Your task to perform on an android device: open app "Viber Messenger" (install if not already installed) Image 0: 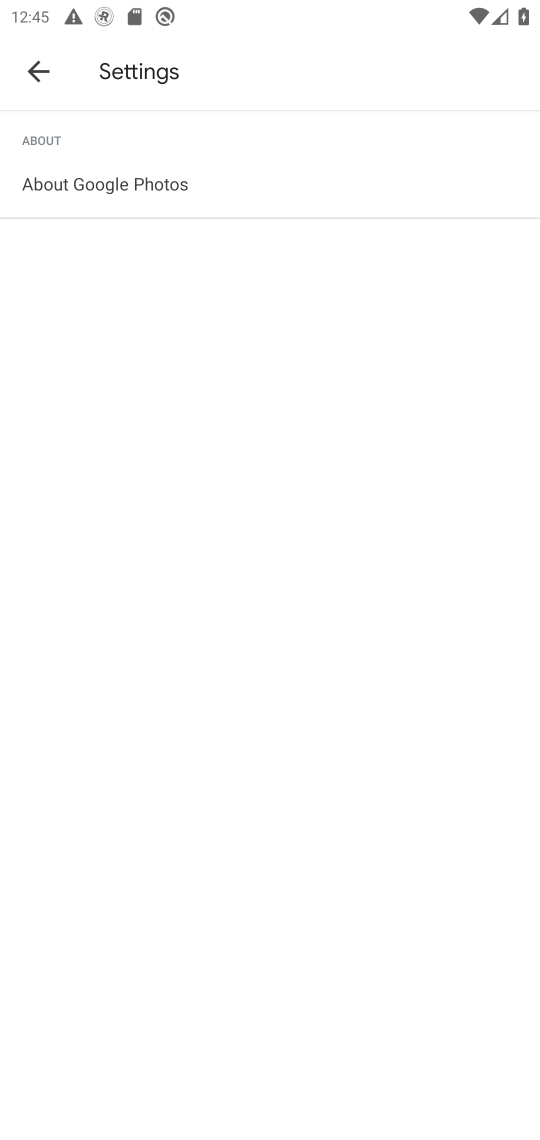
Step 0: press home button
Your task to perform on an android device: open app "Viber Messenger" (install if not already installed) Image 1: 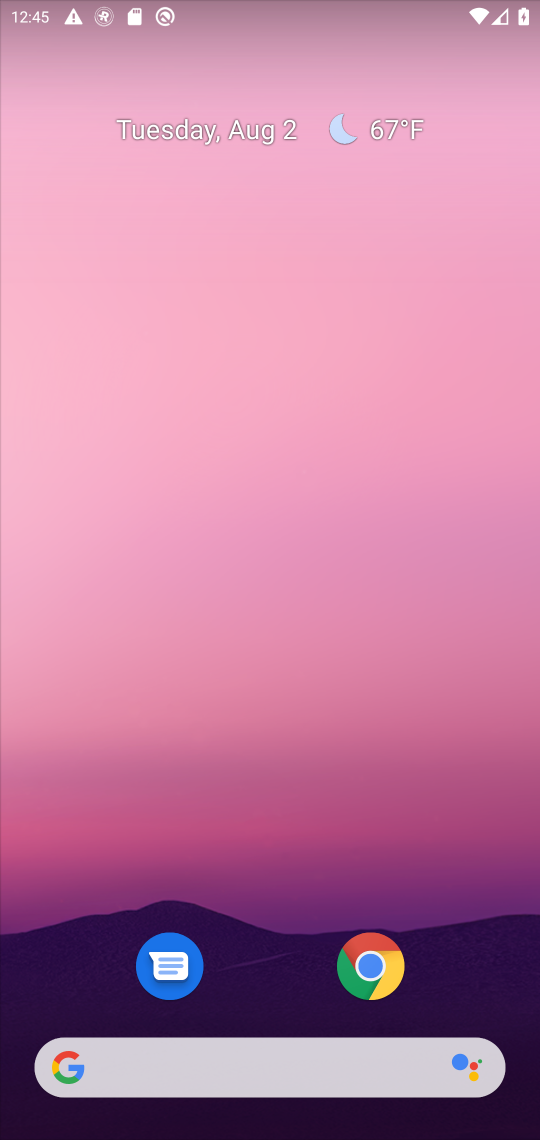
Step 1: drag from (255, 918) to (243, 77)
Your task to perform on an android device: open app "Viber Messenger" (install if not already installed) Image 2: 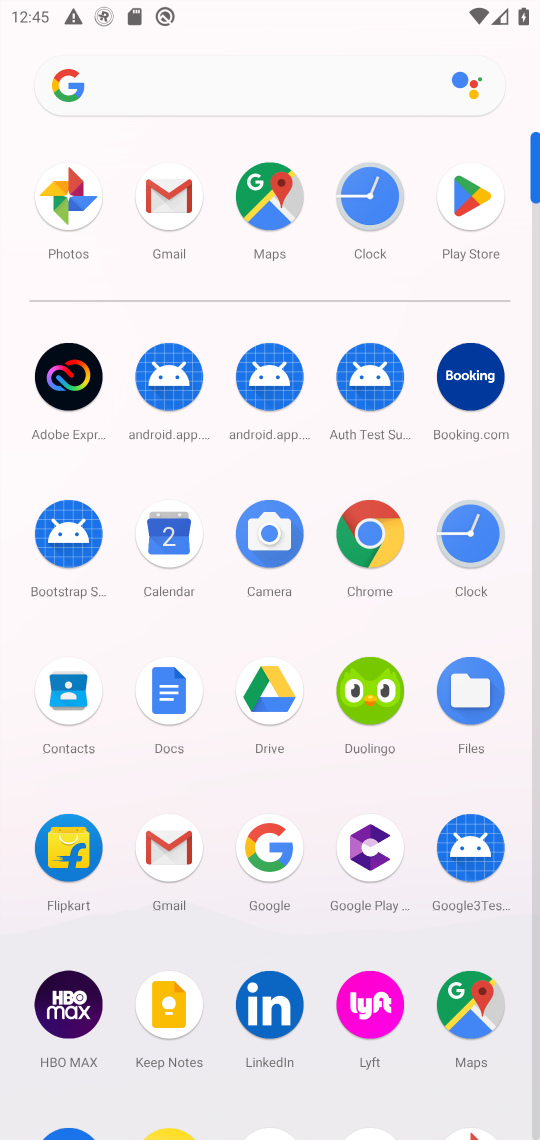
Step 2: click (472, 204)
Your task to perform on an android device: open app "Viber Messenger" (install if not already installed) Image 3: 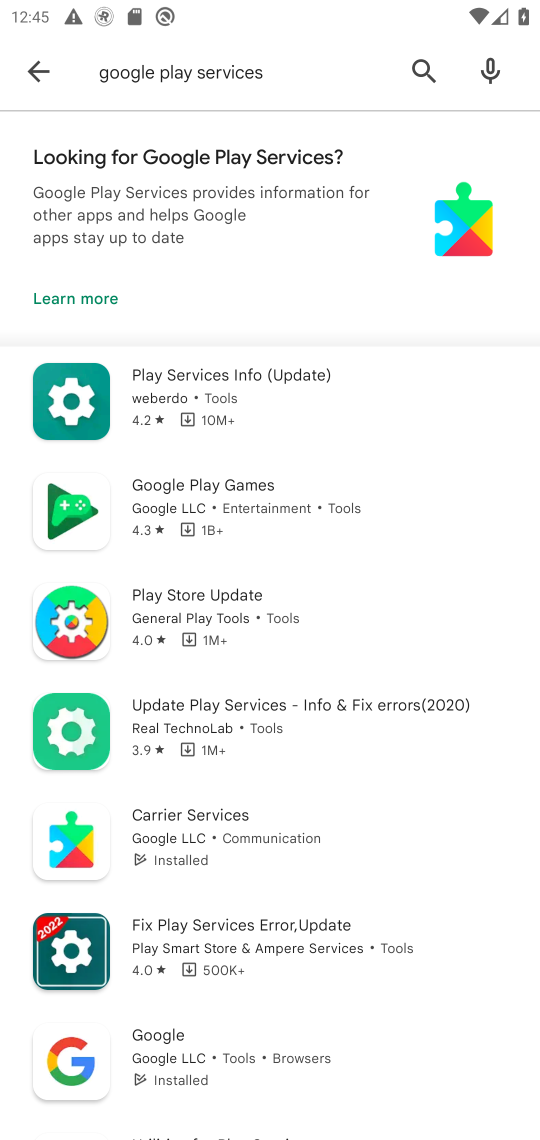
Step 3: click (413, 76)
Your task to perform on an android device: open app "Viber Messenger" (install if not already installed) Image 4: 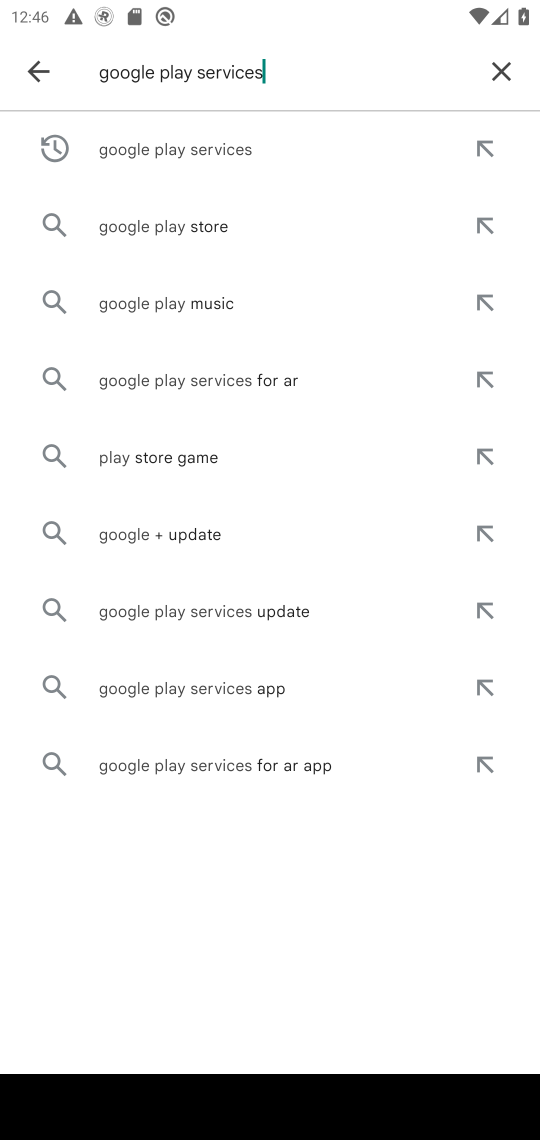
Step 4: click (497, 65)
Your task to perform on an android device: open app "Viber Messenger" (install if not already installed) Image 5: 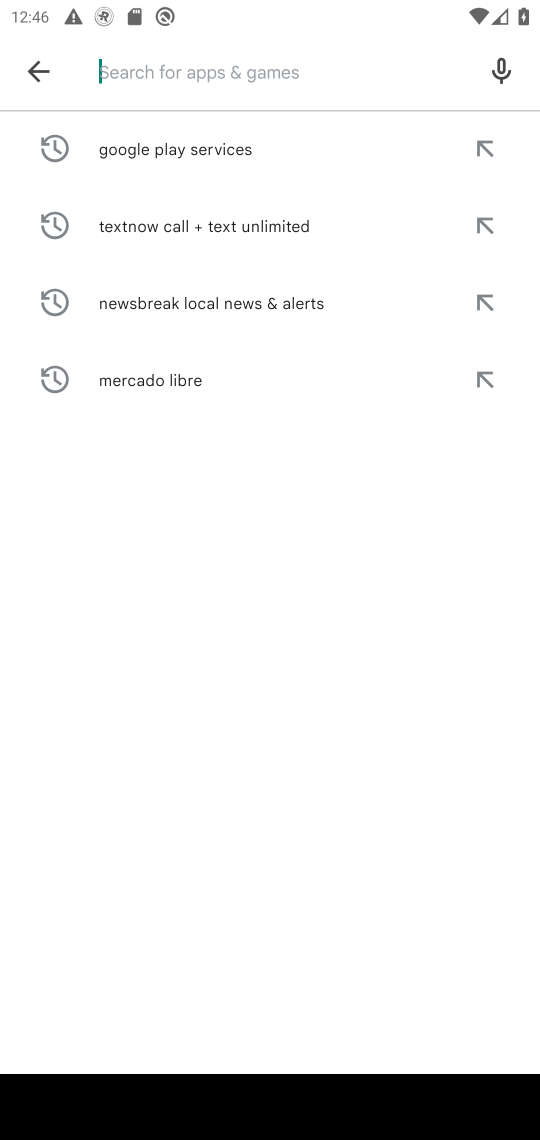
Step 5: type "viber messenger"
Your task to perform on an android device: open app "Viber Messenger" (install if not already installed) Image 6: 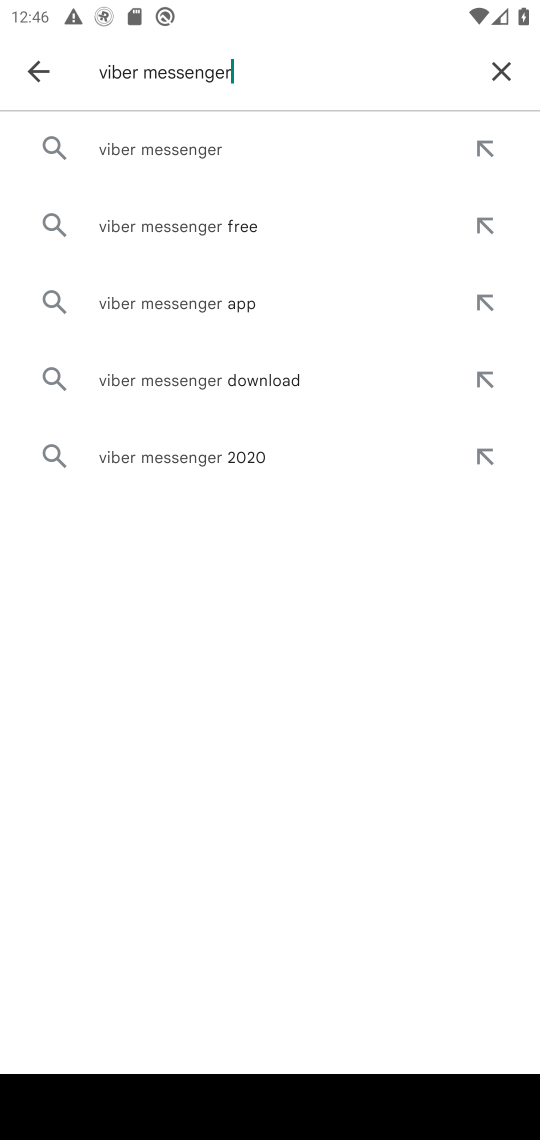
Step 6: click (181, 145)
Your task to perform on an android device: open app "Viber Messenger" (install if not already installed) Image 7: 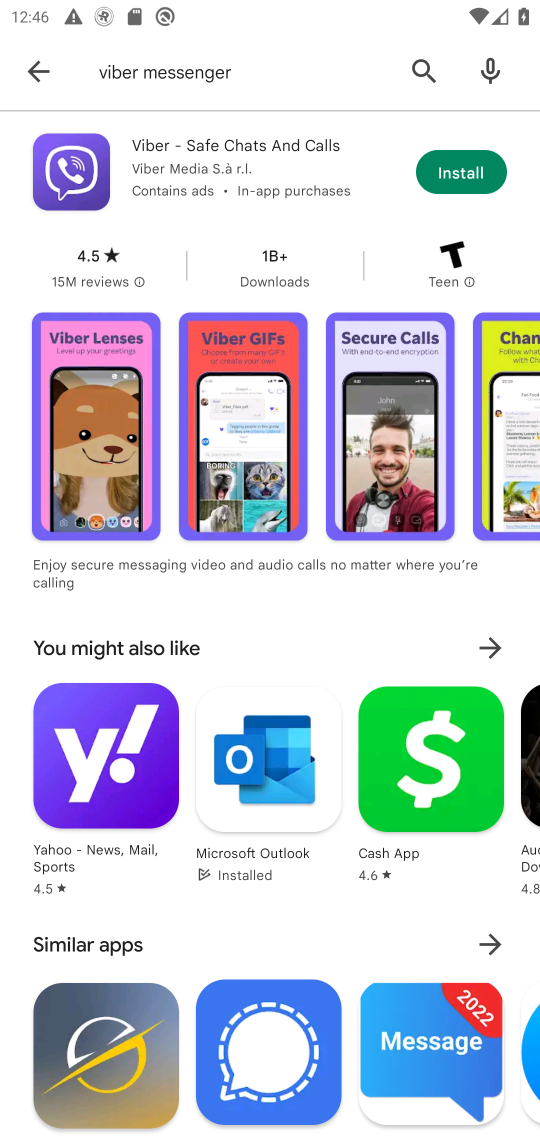
Step 7: click (470, 167)
Your task to perform on an android device: open app "Viber Messenger" (install if not already installed) Image 8: 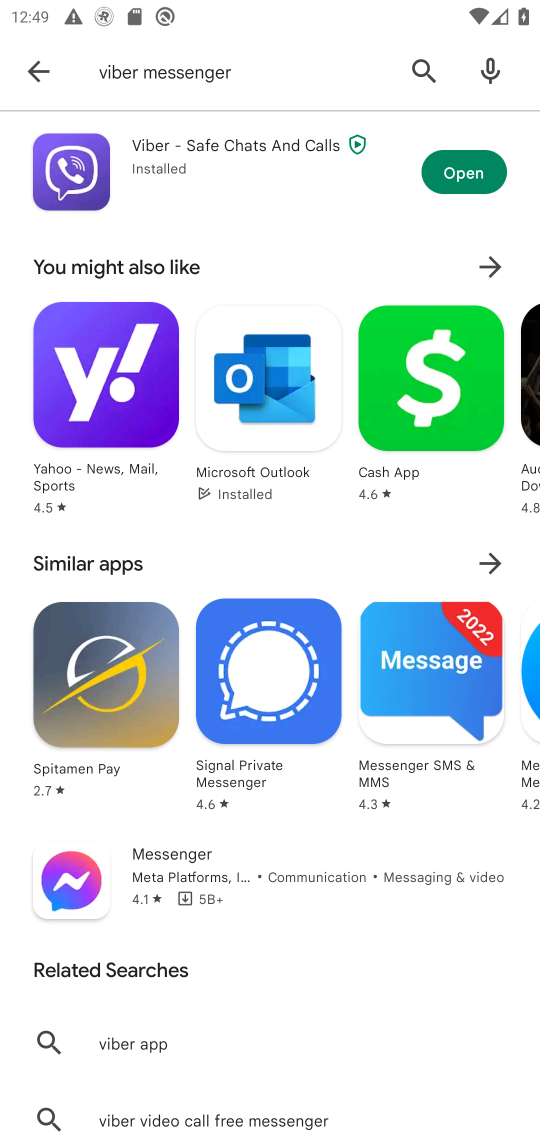
Step 8: task complete